Your task to perform on an android device: Search for seafood restaurants on Google Maps Image 0: 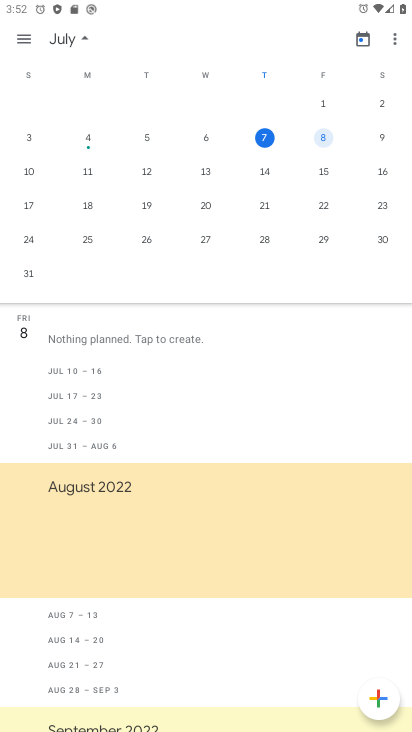
Step 0: press home button
Your task to perform on an android device: Search for seafood restaurants on Google Maps Image 1: 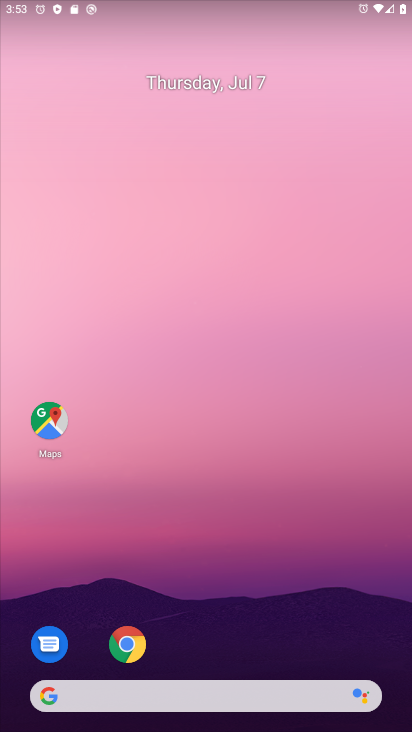
Step 1: click (40, 438)
Your task to perform on an android device: Search for seafood restaurants on Google Maps Image 2: 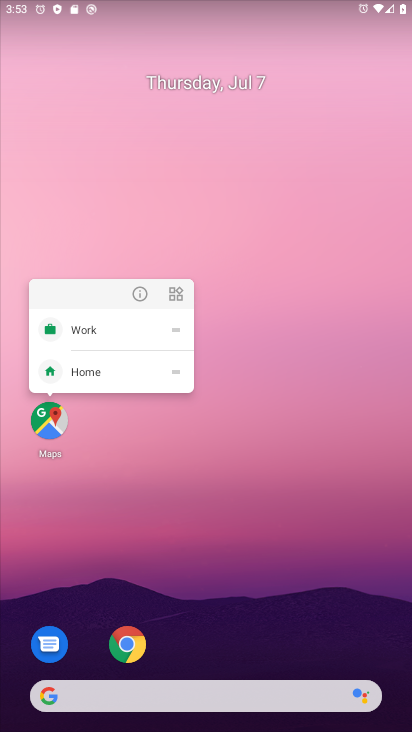
Step 2: click (42, 436)
Your task to perform on an android device: Search for seafood restaurants on Google Maps Image 3: 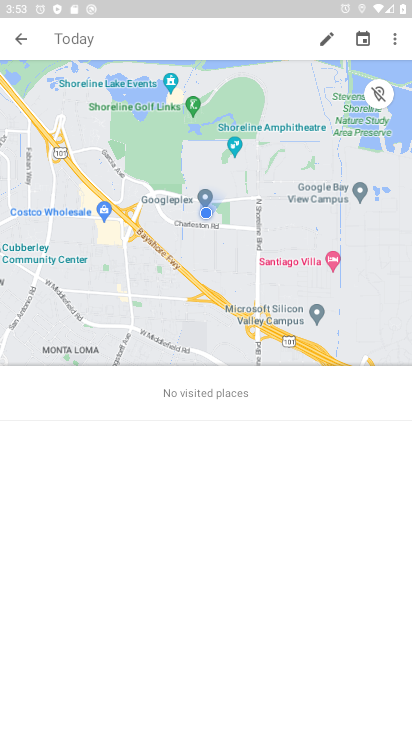
Step 3: click (15, 40)
Your task to perform on an android device: Search for seafood restaurants on Google Maps Image 4: 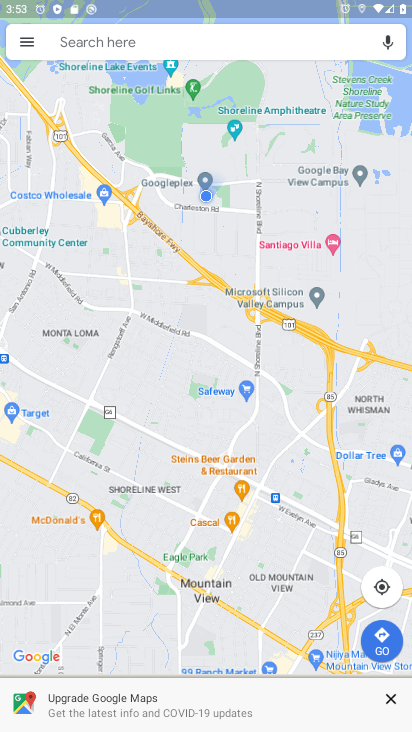
Step 4: click (103, 43)
Your task to perform on an android device: Search for seafood restaurants on Google Maps Image 5: 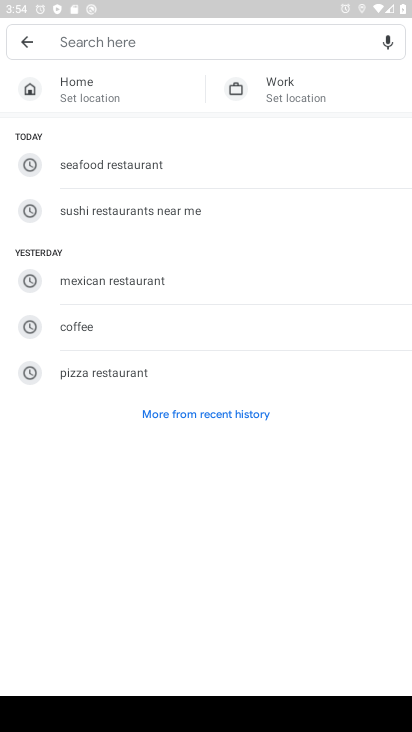
Step 5: type "seafood restaurats"
Your task to perform on an android device: Search for seafood restaurants on Google Maps Image 6: 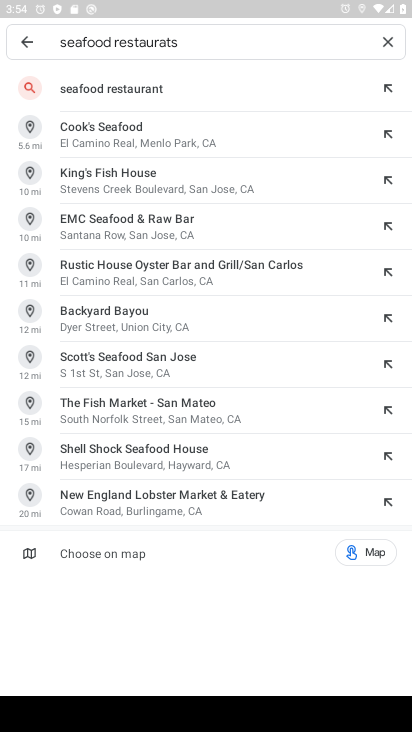
Step 6: click (113, 89)
Your task to perform on an android device: Search for seafood restaurants on Google Maps Image 7: 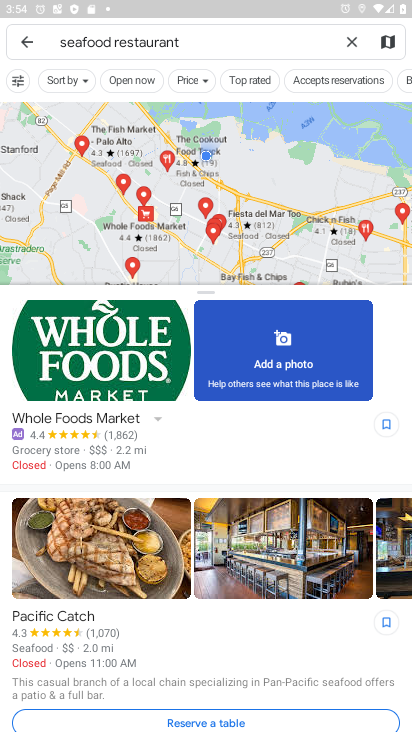
Step 7: task complete